Your task to perform on an android device: Open battery settings Image 0: 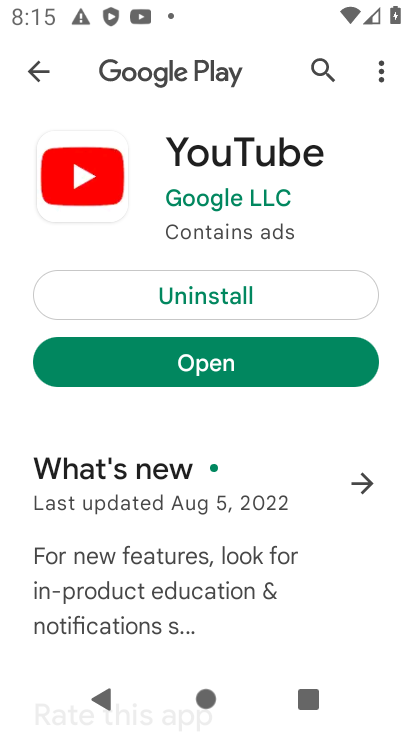
Step 0: press home button
Your task to perform on an android device: Open battery settings Image 1: 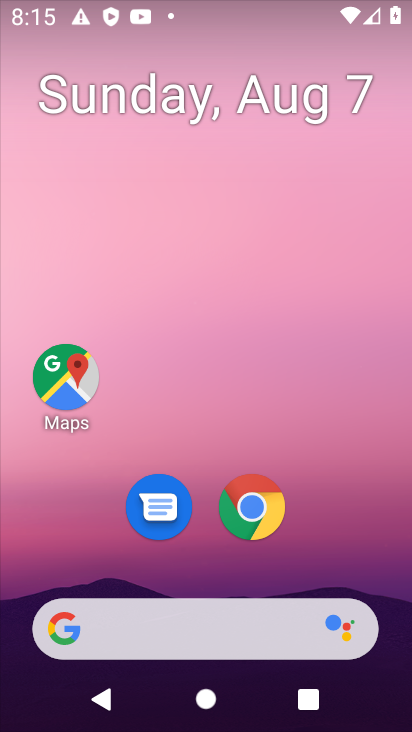
Step 1: drag from (184, 606) to (300, 56)
Your task to perform on an android device: Open battery settings Image 2: 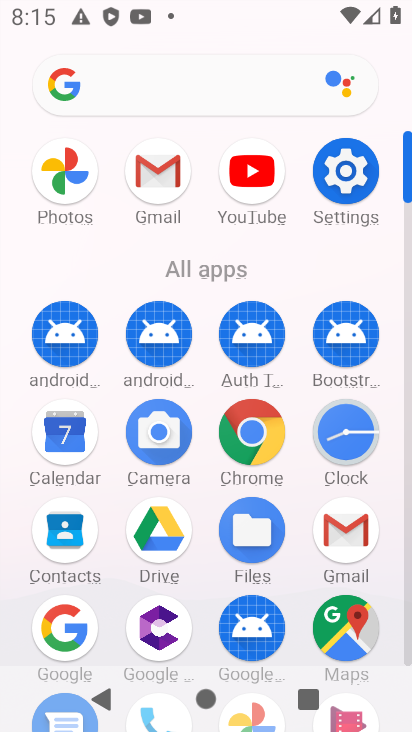
Step 2: click (342, 162)
Your task to perform on an android device: Open battery settings Image 3: 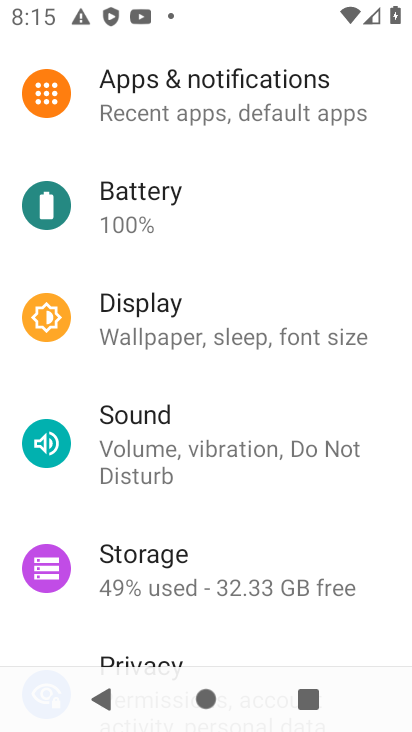
Step 3: click (149, 199)
Your task to perform on an android device: Open battery settings Image 4: 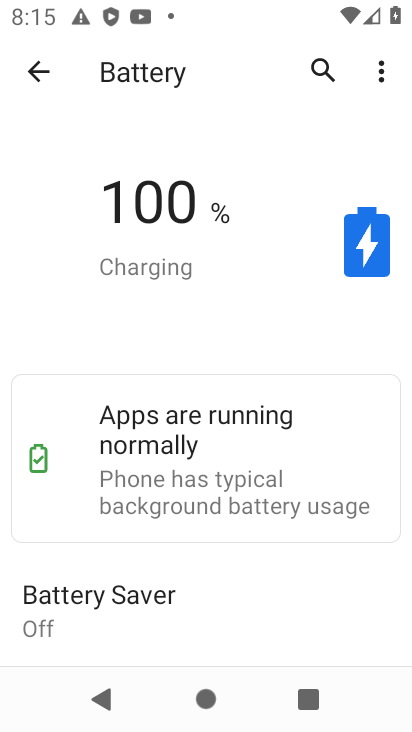
Step 4: task complete